Your task to perform on an android device: Go to Yahoo.com Image 0: 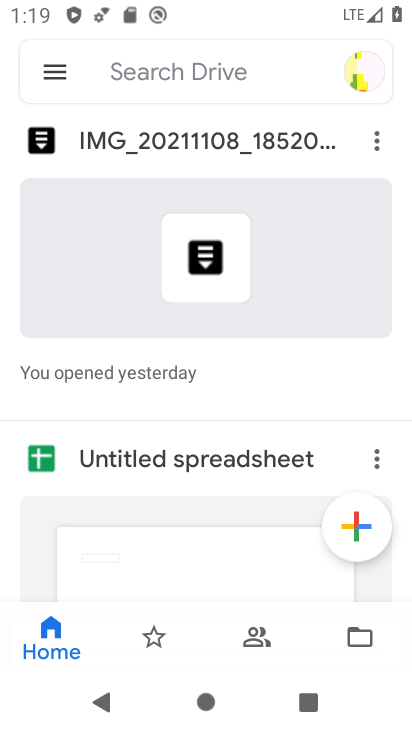
Step 0: press home button
Your task to perform on an android device: Go to Yahoo.com Image 1: 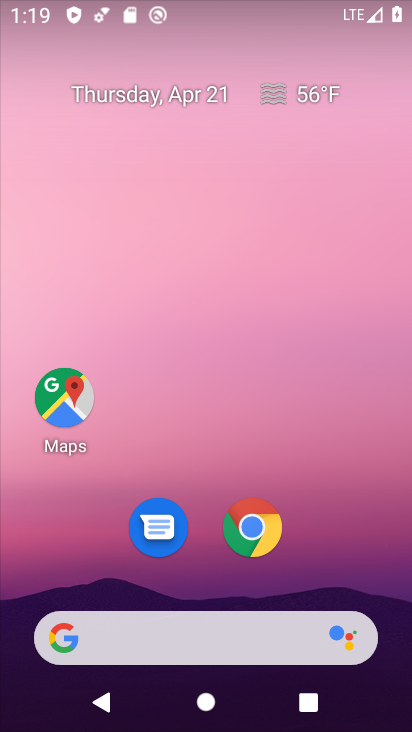
Step 1: click (176, 632)
Your task to perform on an android device: Go to Yahoo.com Image 2: 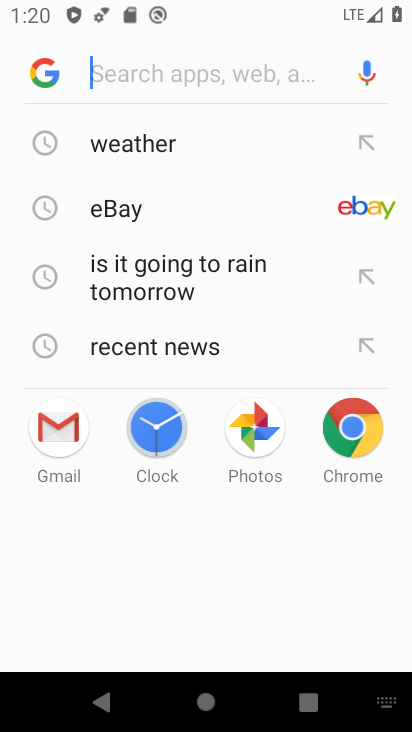
Step 2: type "Yahoo.com"
Your task to perform on an android device: Go to Yahoo.com Image 3: 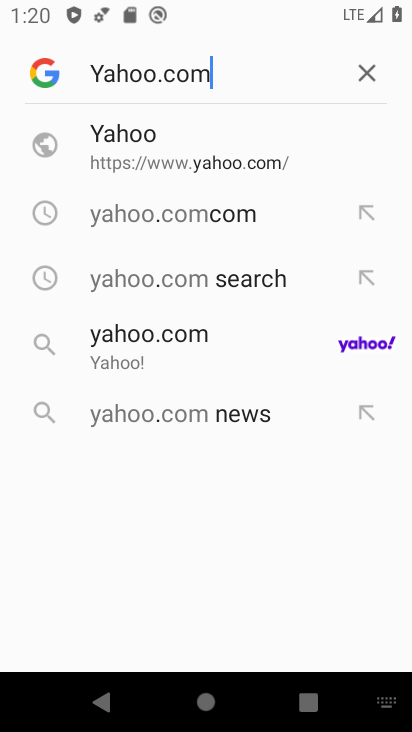
Step 3: click (215, 136)
Your task to perform on an android device: Go to Yahoo.com Image 4: 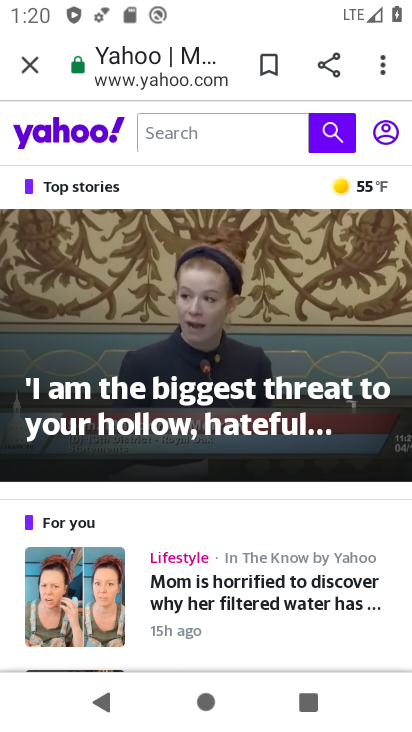
Step 4: task complete